Your task to perform on an android device: toggle translation in the chrome app Image 0: 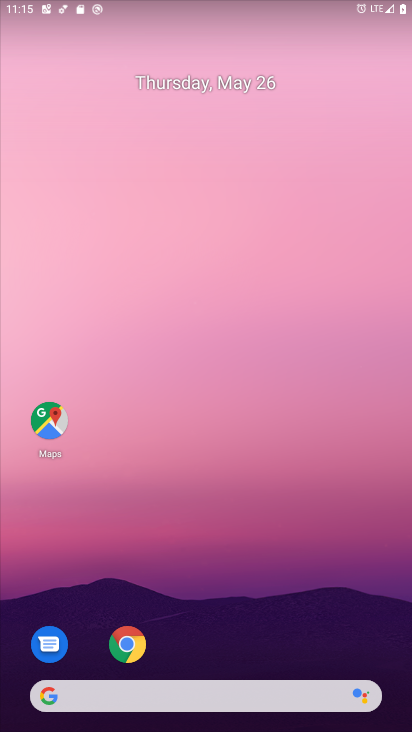
Step 0: drag from (337, 601) to (340, 315)
Your task to perform on an android device: toggle translation in the chrome app Image 1: 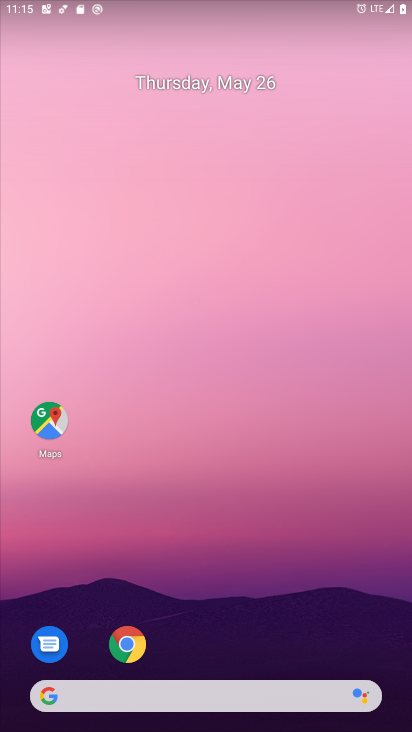
Step 1: drag from (347, 592) to (328, 194)
Your task to perform on an android device: toggle translation in the chrome app Image 2: 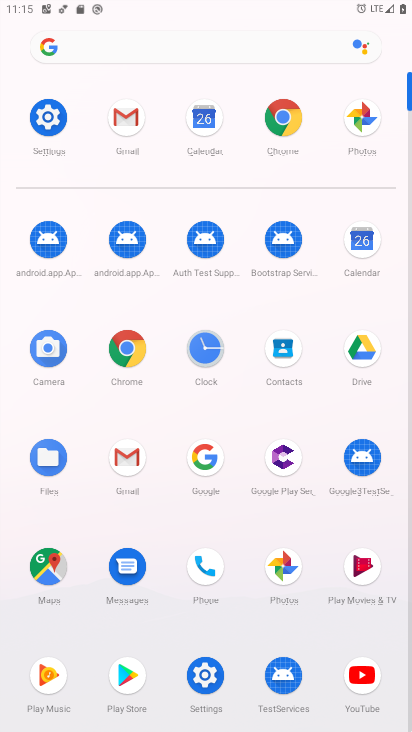
Step 2: click (128, 356)
Your task to perform on an android device: toggle translation in the chrome app Image 3: 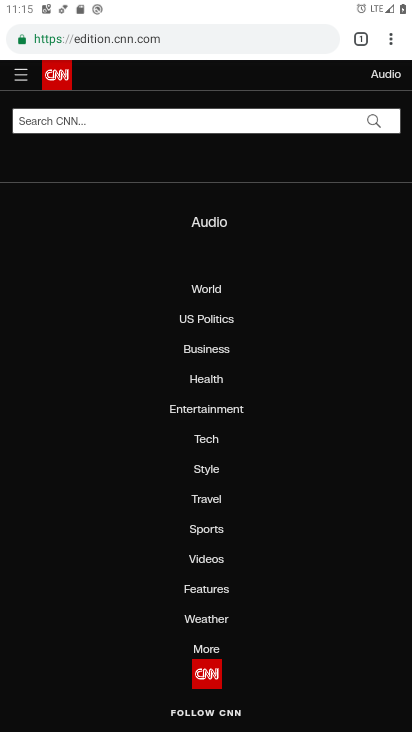
Step 3: click (390, 42)
Your task to perform on an android device: toggle translation in the chrome app Image 4: 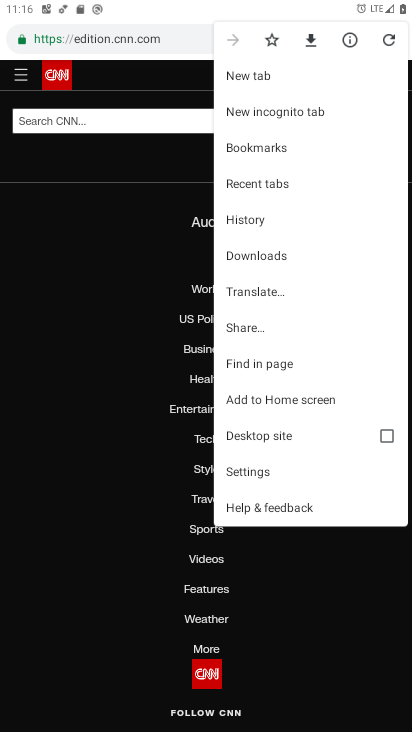
Step 4: click (263, 473)
Your task to perform on an android device: toggle translation in the chrome app Image 5: 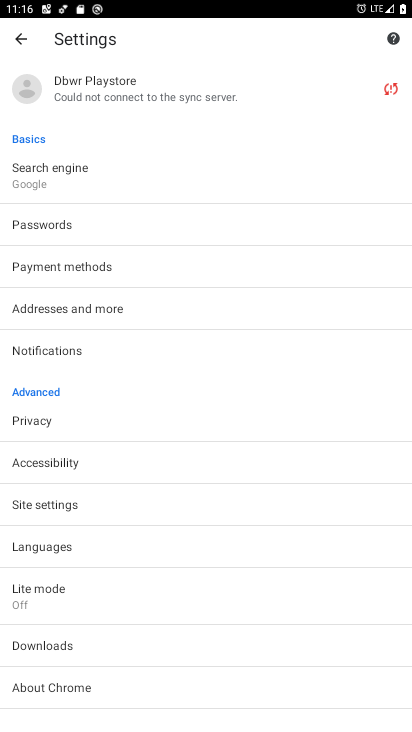
Step 5: drag from (265, 619) to (269, 409)
Your task to perform on an android device: toggle translation in the chrome app Image 6: 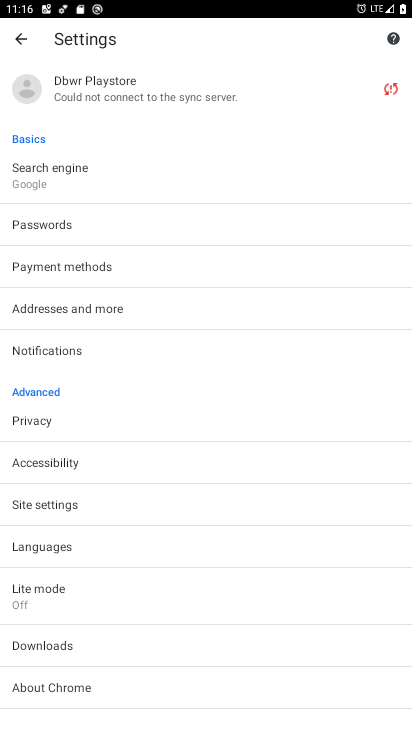
Step 6: click (156, 546)
Your task to perform on an android device: toggle translation in the chrome app Image 7: 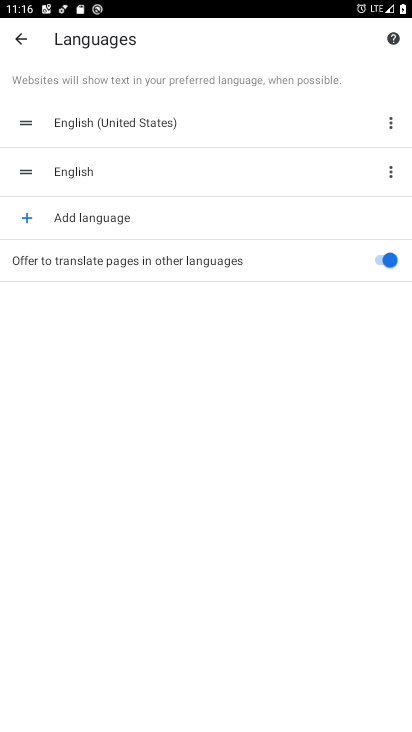
Step 7: click (391, 252)
Your task to perform on an android device: toggle translation in the chrome app Image 8: 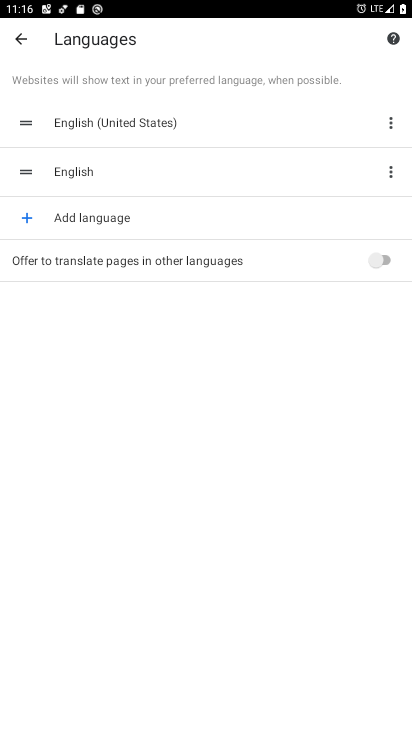
Step 8: task complete